Your task to perform on an android device: Open Amazon Image 0: 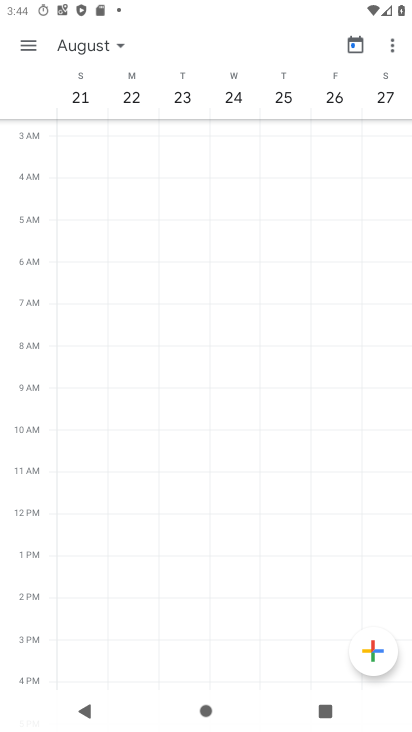
Step 0: press home button
Your task to perform on an android device: Open Amazon Image 1: 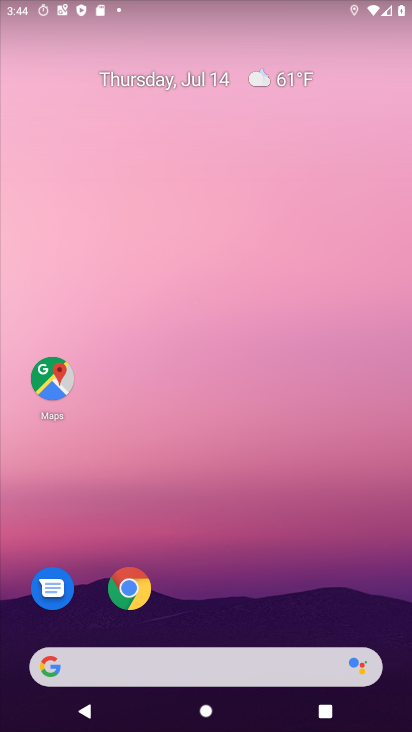
Step 1: click (129, 591)
Your task to perform on an android device: Open Amazon Image 2: 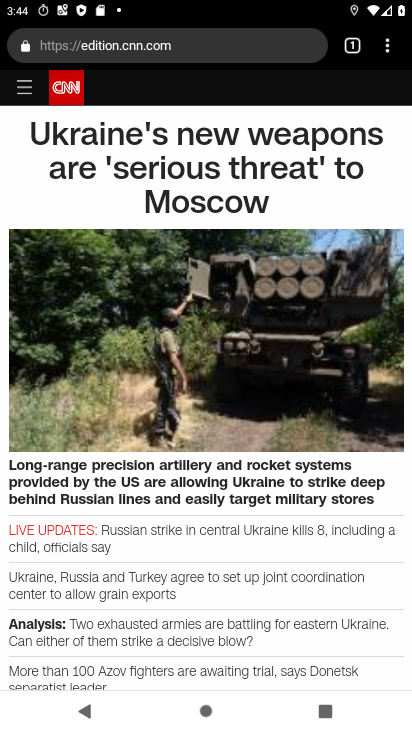
Step 2: click (207, 41)
Your task to perform on an android device: Open Amazon Image 3: 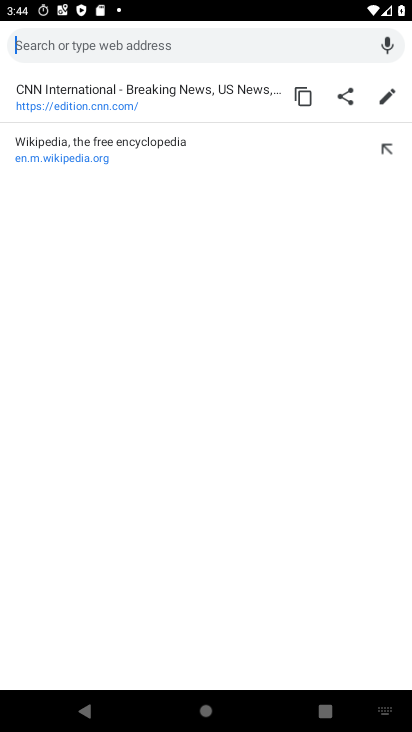
Step 3: type "Amazon"
Your task to perform on an android device: Open Amazon Image 4: 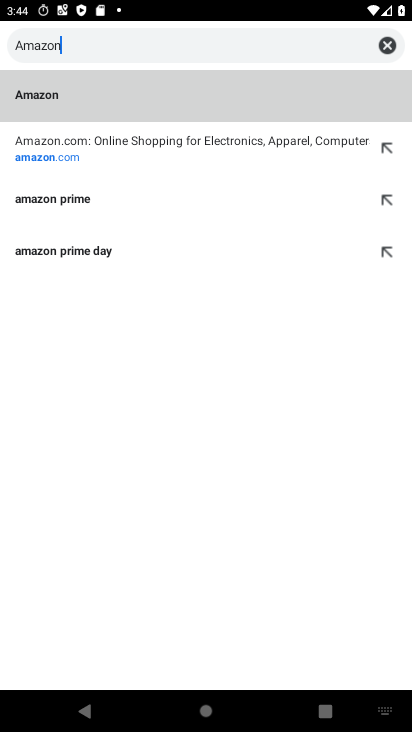
Step 4: click (205, 88)
Your task to perform on an android device: Open Amazon Image 5: 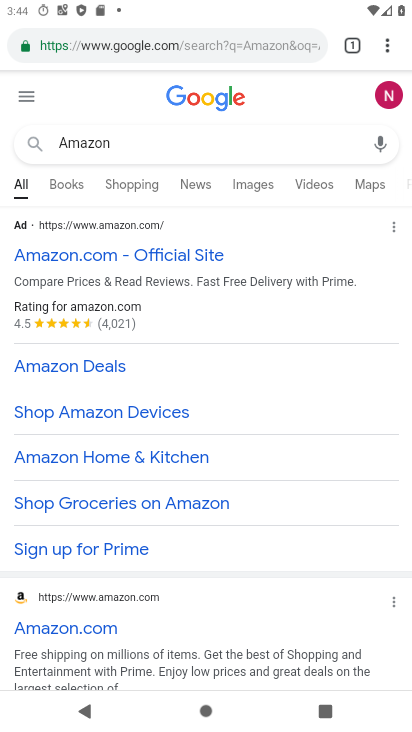
Step 5: click (62, 619)
Your task to perform on an android device: Open Amazon Image 6: 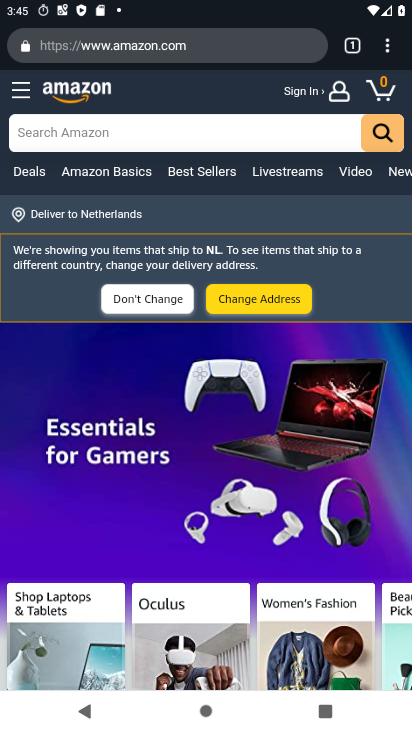
Step 6: task complete